Your task to perform on an android device: turn off location history Image 0: 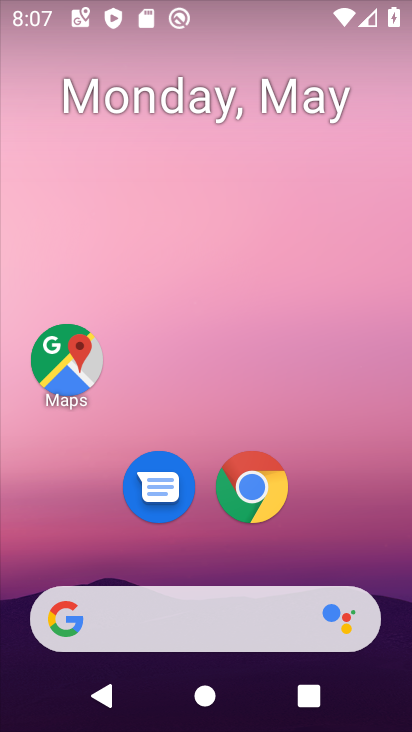
Step 0: drag from (375, 564) to (383, 191)
Your task to perform on an android device: turn off location history Image 1: 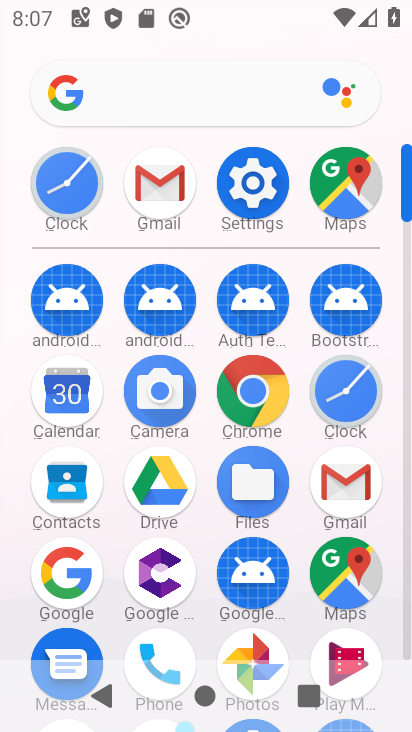
Step 1: click (268, 200)
Your task to perform on an android device: turn off location history Image 2: 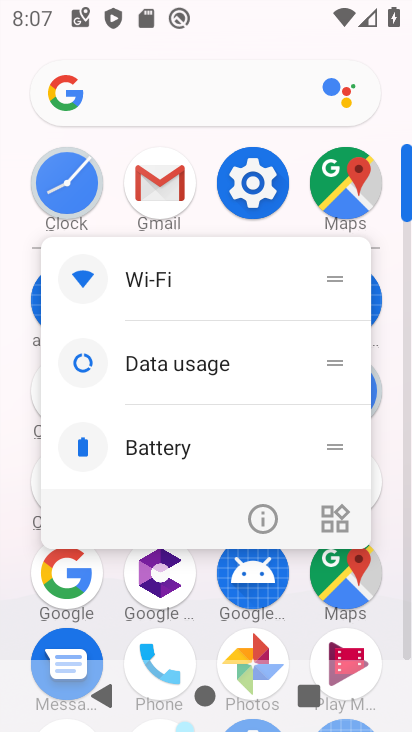
Step 2: click (268, 200)
Your task to perform on an android device: turn off location history Image 3: 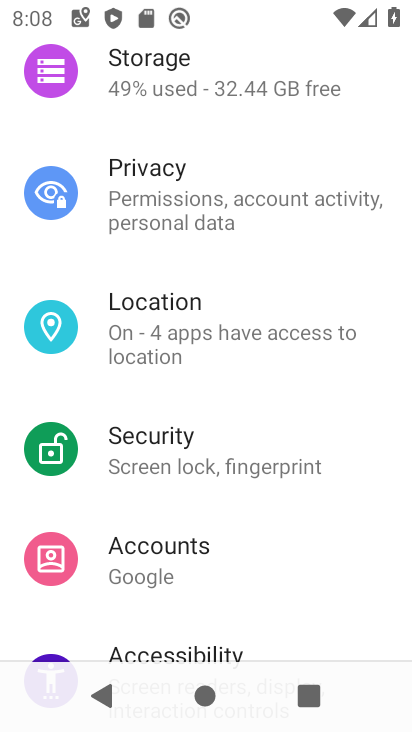
Step 3: drag from (383, 153) to (384, 303)
Your task to perform on an android device: turn off location history Image 4: 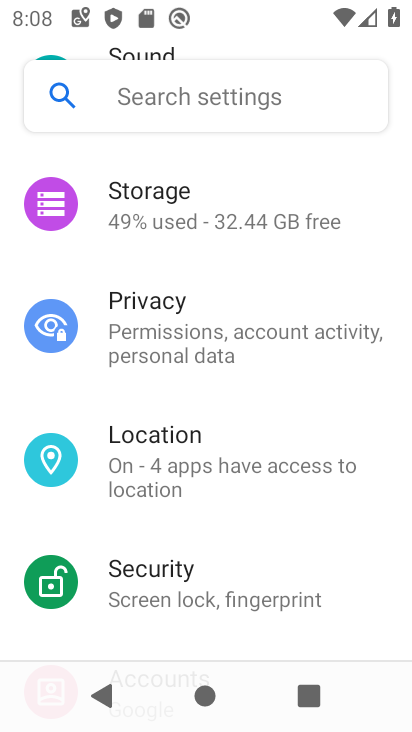
Step 4: drag from (366, 159) to (368, 310)
Your task to perform on an android device: turn off location history Image 5: 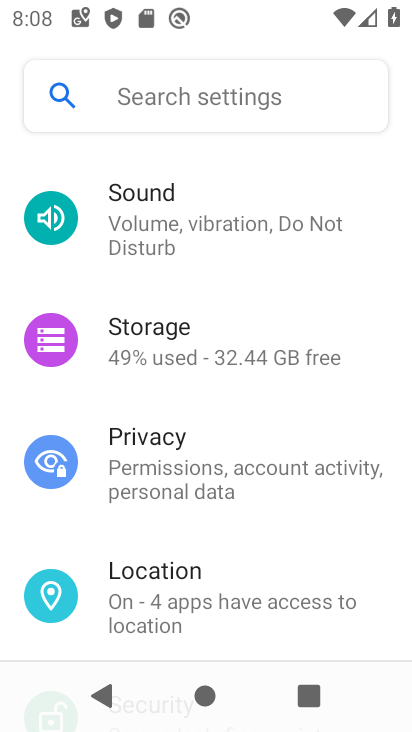
Step 5: drag from (362, 166) to (364, 314)
Your task to perform on an android device: turn off location history Image 6: 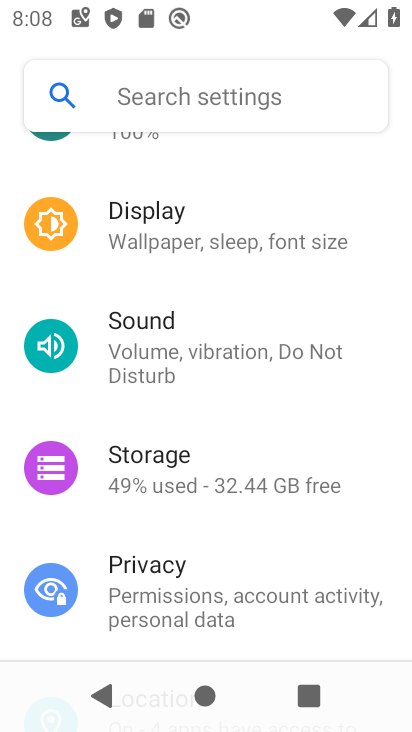
Step 6: drag from (361, 168) to (365, 318)
Your task to perform on an android device: turn off location history Image 7: 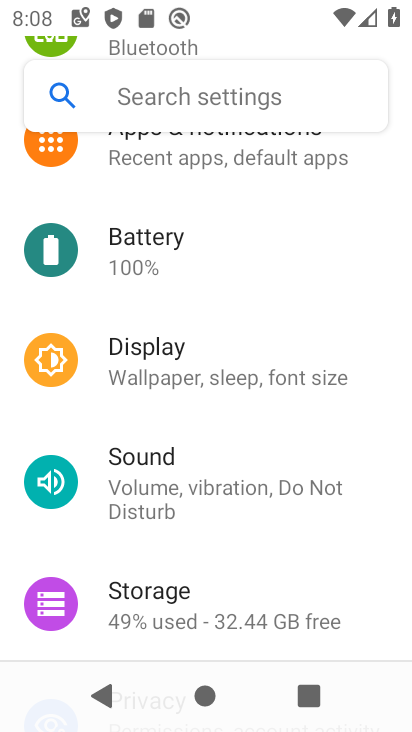
Step 7: drag from (372, 143) to (364, 320)
Your task to perform on an android device: turn off location history Image 8: 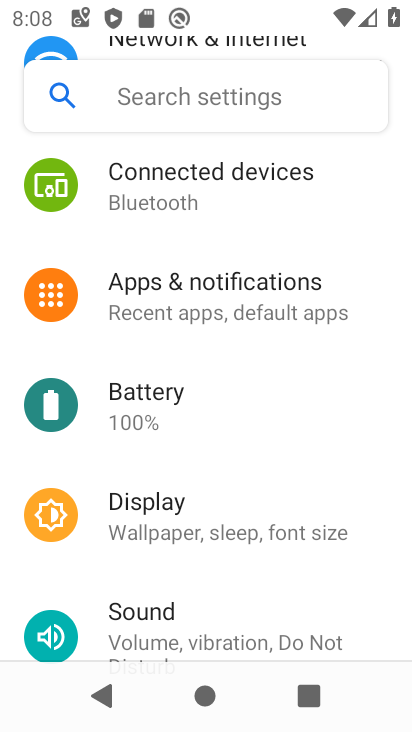
Step 8: drag from (375, 153) to (372, 302)
Your task to perform on an android device: turn off location history Image 9: 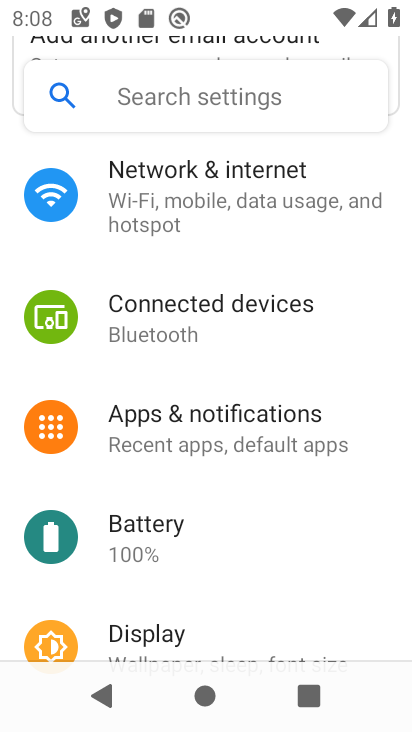
Step 9: drag from (386, 154) to (373, 313)
Your task to perform on an android device: turn off location history Image 10: 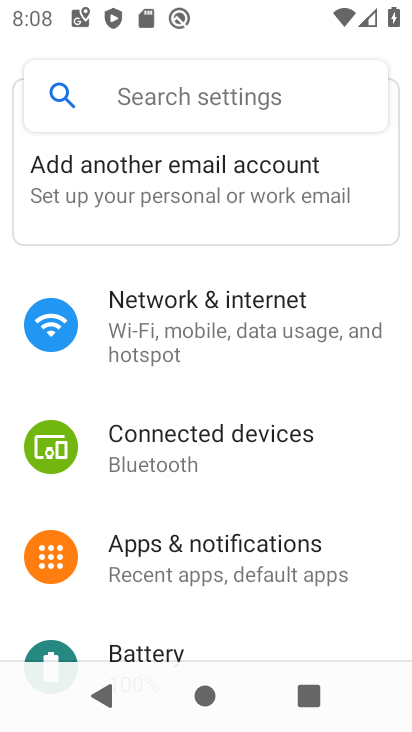
Step 10: drag from (340, 349) to (355, 219)
Your task to perform on an android device: turn off location history Image 11: 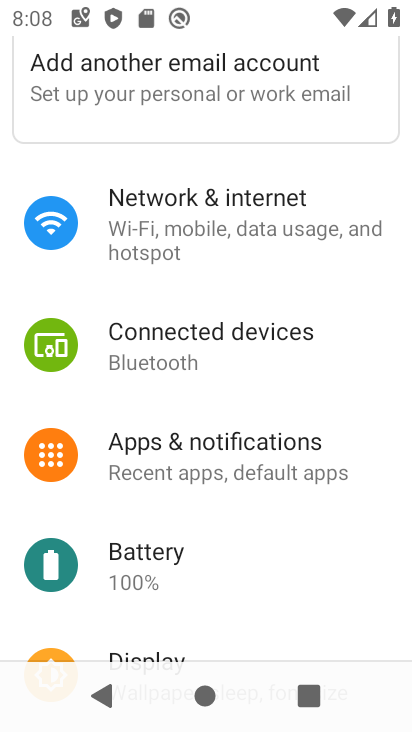
Step 11: drag from (353, 339) to (349, 188)
Your task to perform on an android device: turn off location history Image 12: 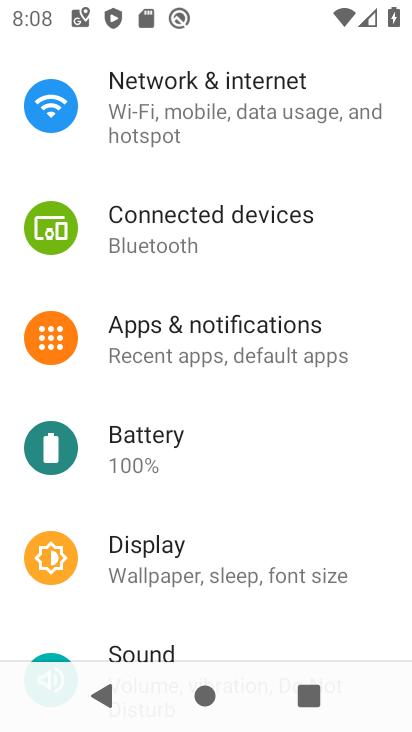
Step 12: drag from (362, 372) to (354, 195)
Your task to perform on an android device: turn off location history Image 13: 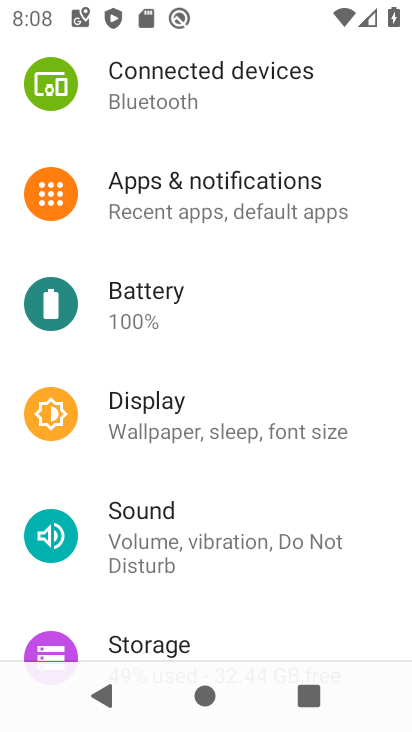
Step 13: drag from (327, 367) to (347, 218)
Your task to perform on an android device: turn off location history Image 14: 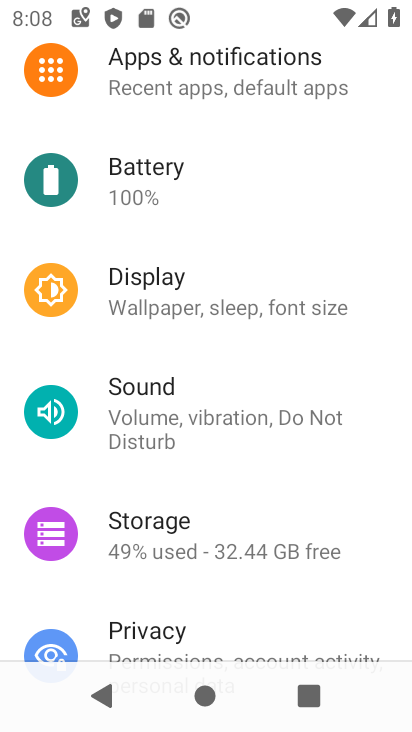
Step 14: drag from (317, 351) to (321, 55)
Your task to perform on an android device: turn off location history Image 15: 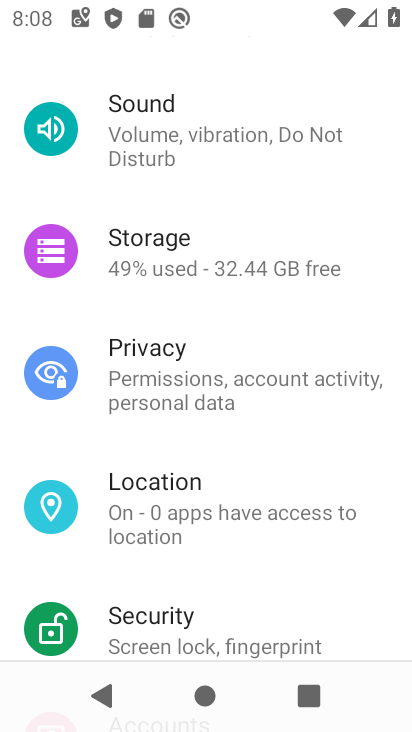
Step 15: drag from (321, 476) to (321, 316)
Your task to perform on an android device: turn off location history Image 16: 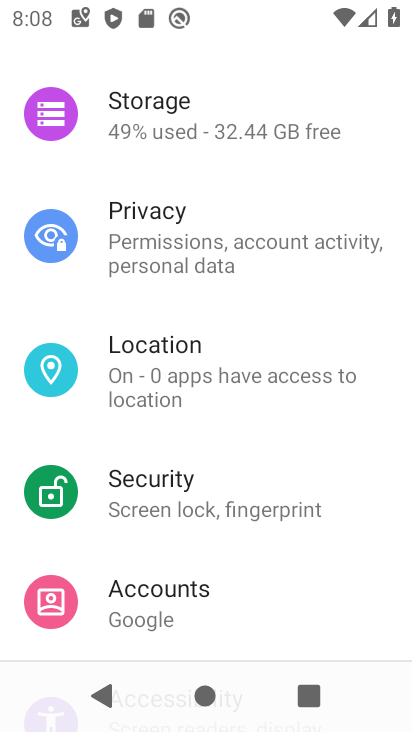
Step 16: click (254, 351)
Your task to perform on an android device: turn off location history Image 17: 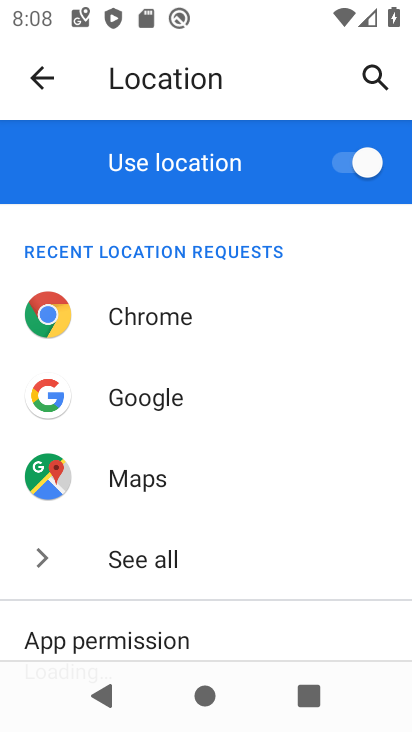
Step 17: drag from (298, 517) to (300, 402)
Your task to perform on an android device: turn off location history Image 18: 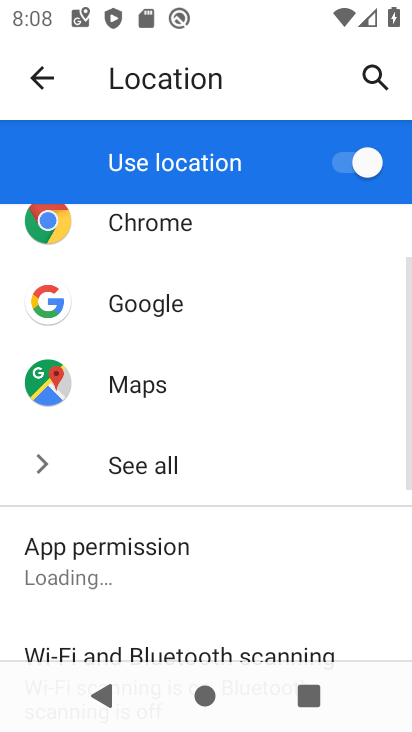
Step 18: click (365, 155)
Your task to perform on an android device: turn off location history Image 19: 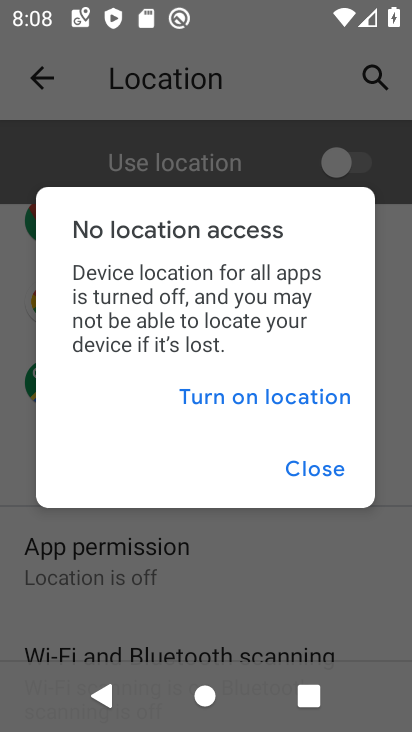
Step 19: task complete